Your task to perform on an android device: set default search engine in the chrome app Image 0: 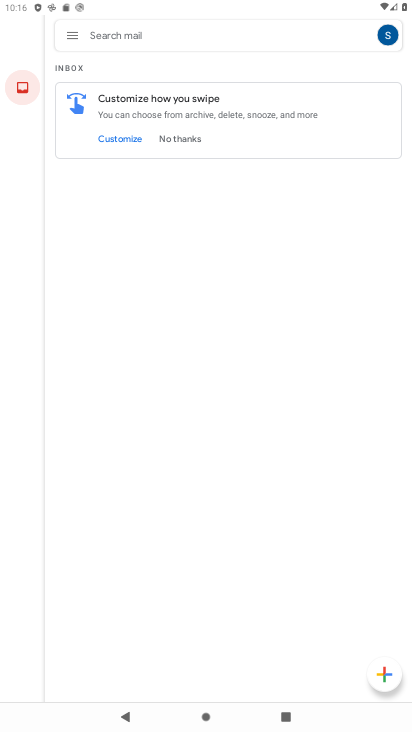
Step 0: press home button
Your task to perform on an android device: set default search engine in the chrome app Image 1: 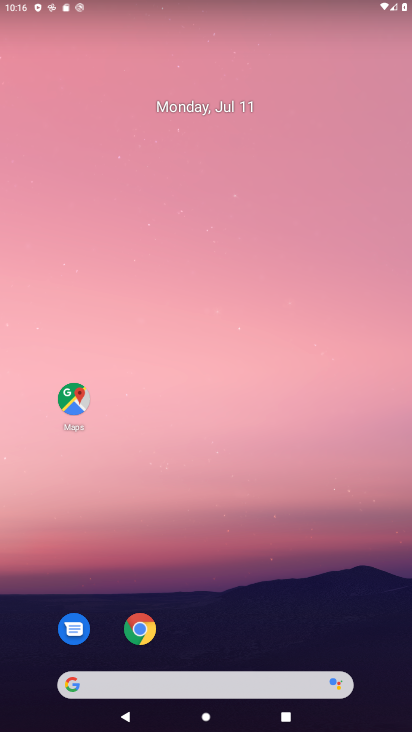
Step 1: click (142, 621)
Your task to perform on an android device: set default search engine in the chrome app Image 2: 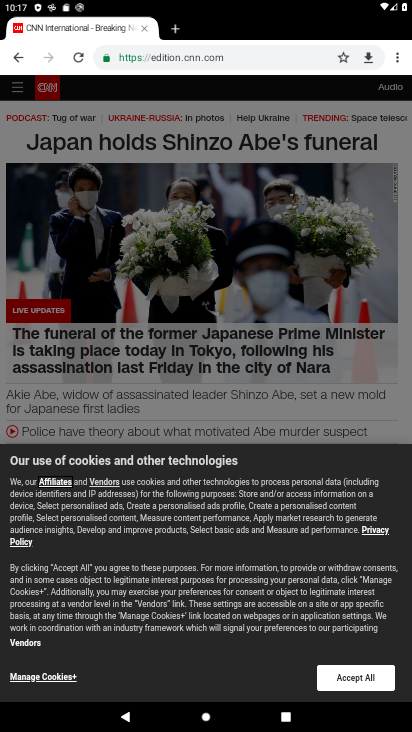
Step 2: click (386, 67)
Your task to perform on an android device: set default search engine in the chrome app Image 3: 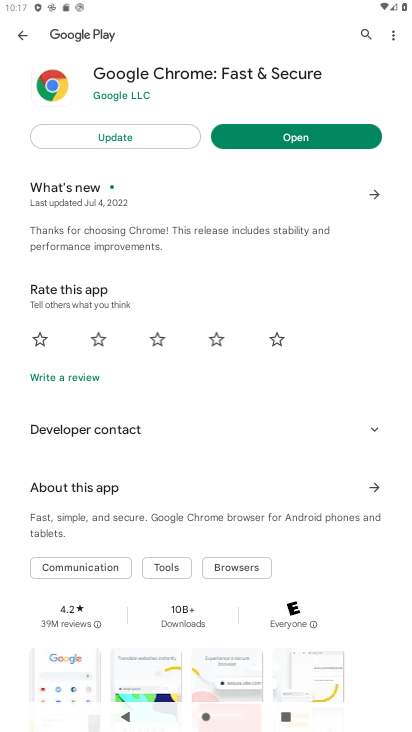
Step 3: click (131, 143)
Your task to perform on an android device: set default search engine in the chrome app Image 4: 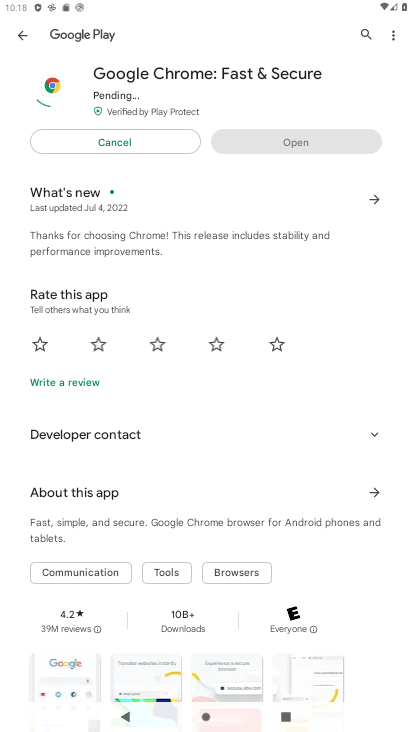
Step 4: click (281, 135)
Your task to perform on an android device: set default search engine in the chrome app Image 5: 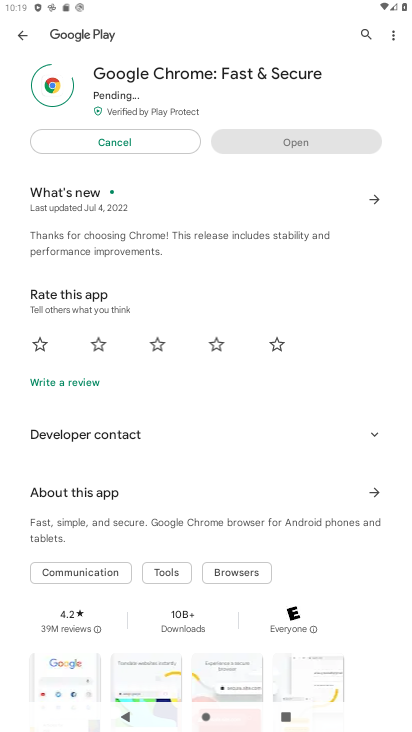
Step 5: task complete